Your task to perform on an android device: turn on wifi Image 0: 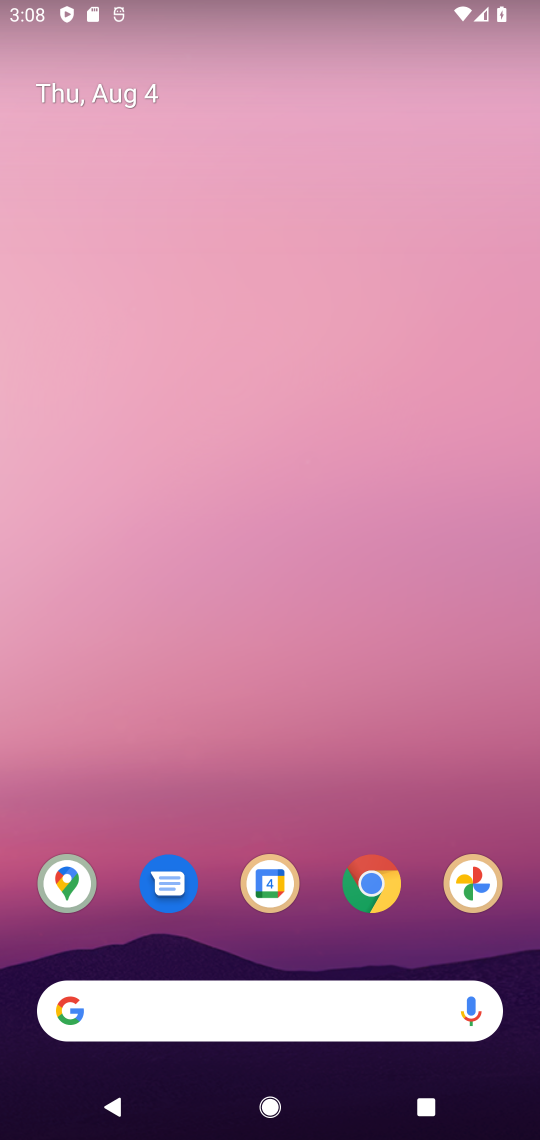
Step 0: drag from (263, 820) to (179, 139)
Your task to perform on an android device: turn on wifi Image 1: 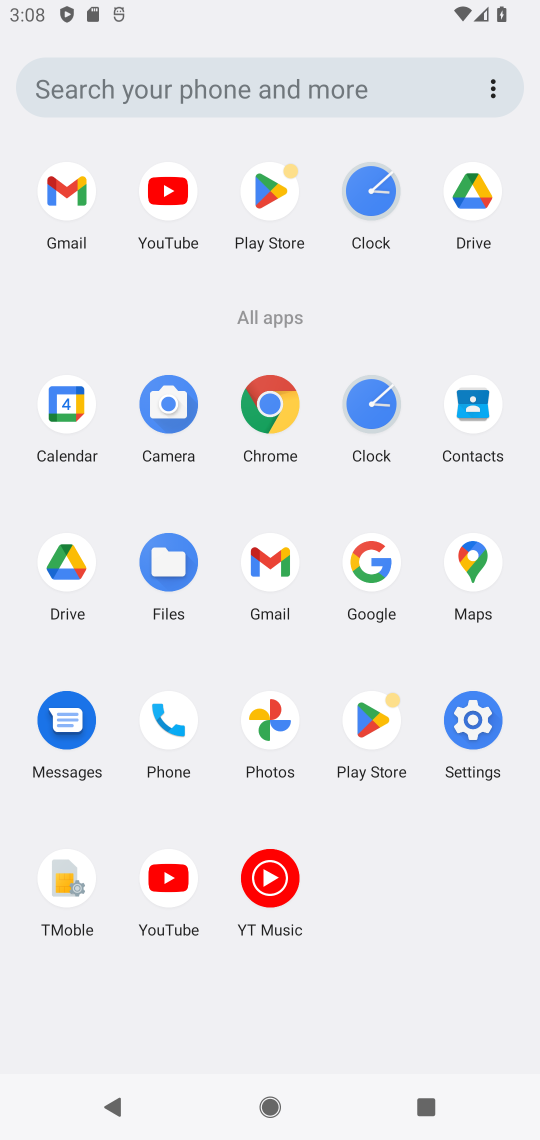
Step 1: click (474, 706)
Your task to perform on an android device: turn on wifi Image 2: 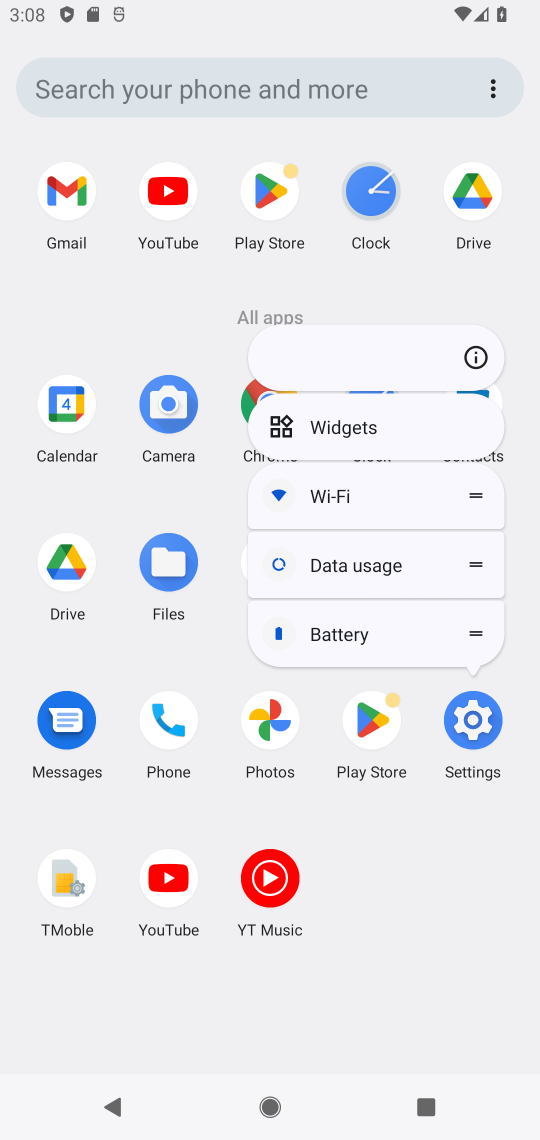
Step 2: click (474, 706)
Your task to perform on an android device: turn on wifi Image 3: 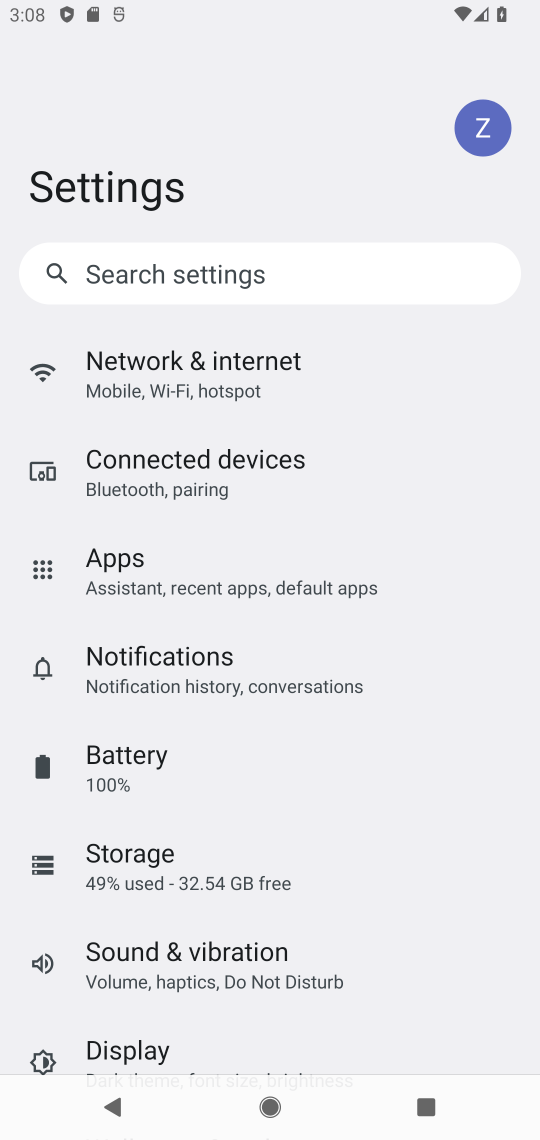
Step 3: click (297, 395)
Your task to perform on an android device: turn on wifi Image 4: 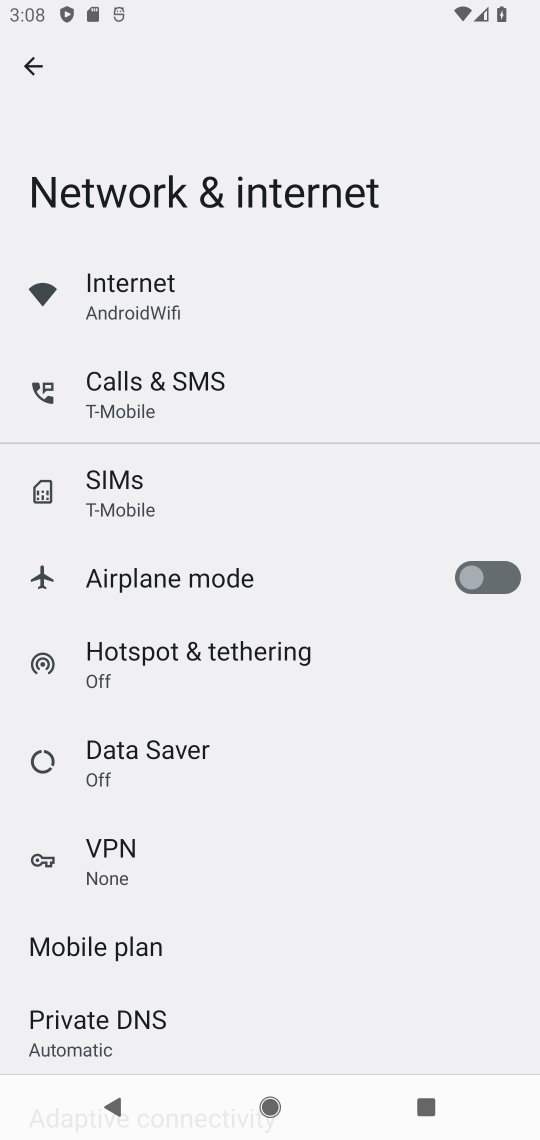
Step 4: click (215, 308)
Your task to perform on an android device: turn on wifi Image 5: 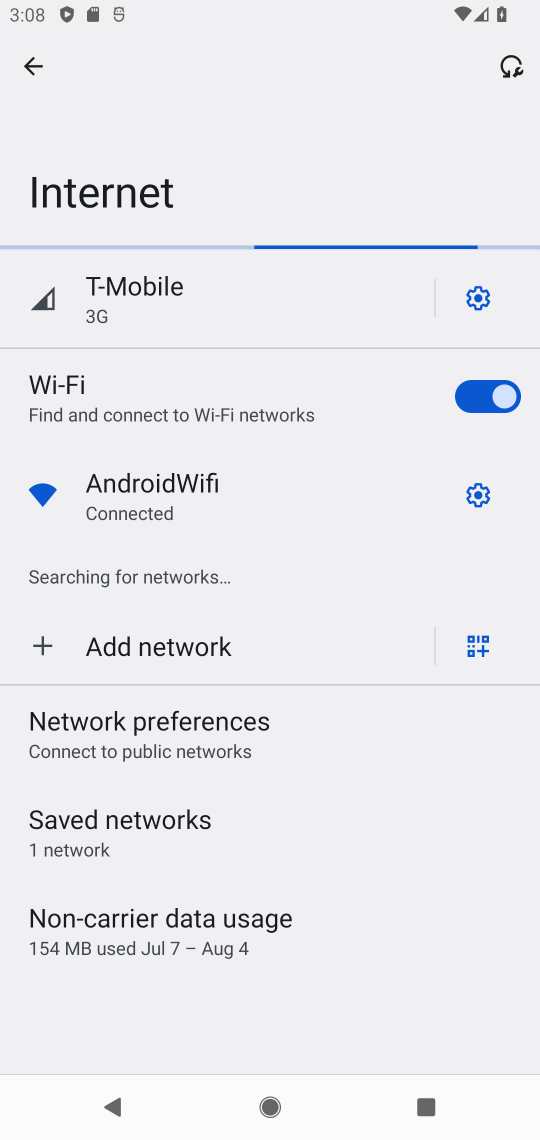
Step 5: task complete